Your task to perform on an android device: Go to settings Image 0: 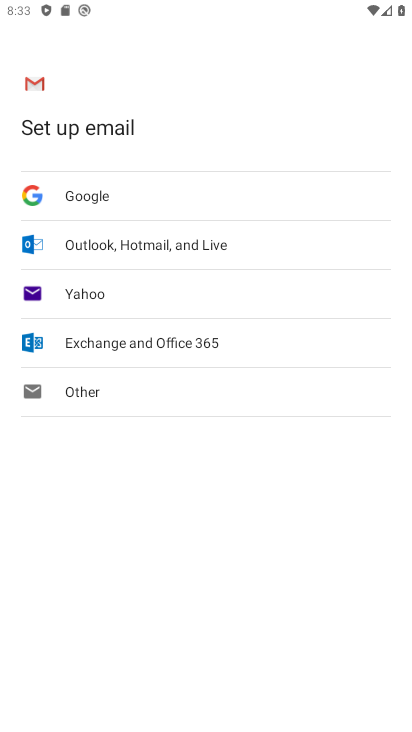
Step 0: press home button
Your task to perform on an android device: Go to settings Image 1: 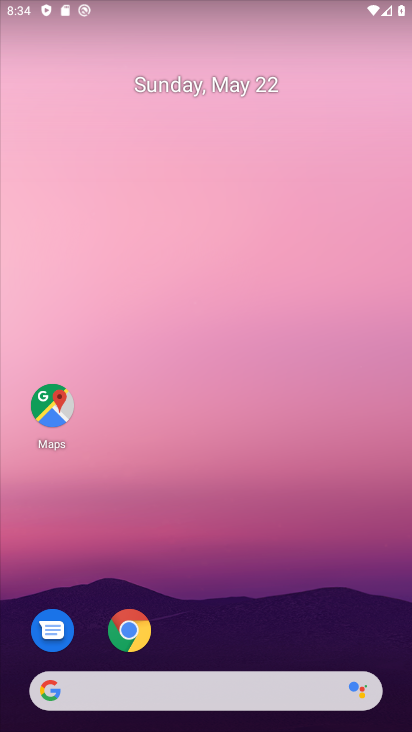
Step 1: drag from (263, 600) to (291, 35)
Your task to perform on an android device: Go to settings Image 2: 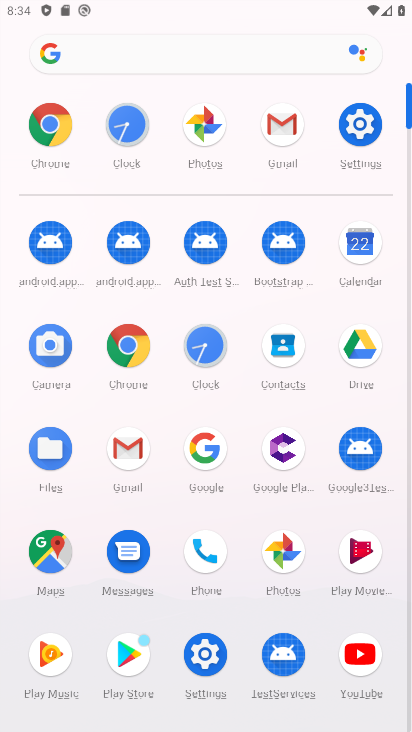
Step 2: click (343, 127)
Your task to perform on an android device: Go to settings Image 3: 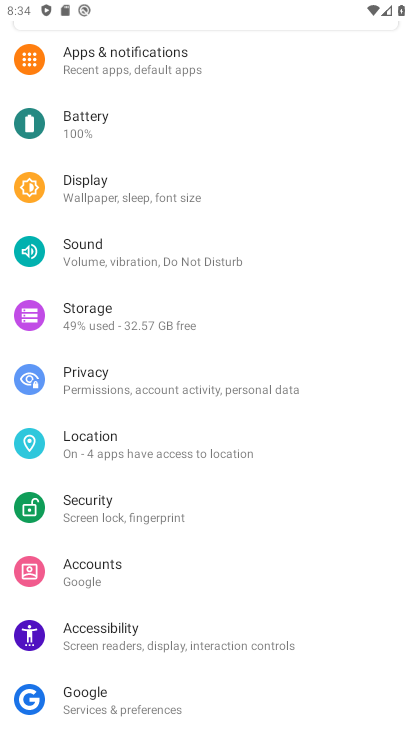
Step 3: task complete